Your task to perform on an android device: open chrome and create a bookmark for the current page Image 0: 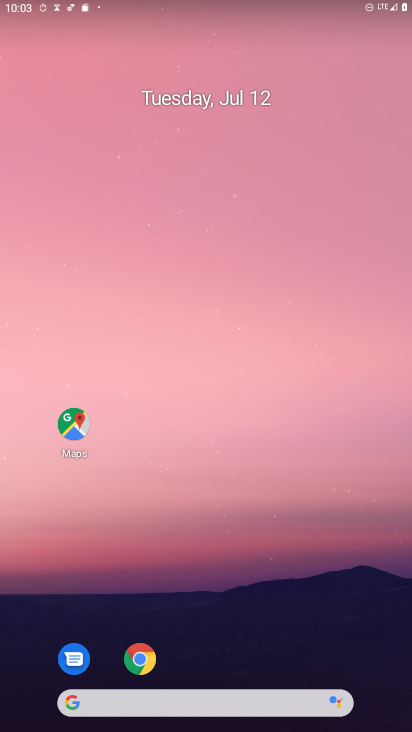
Step 0: click (143, 656)
Your task to perform on an android device: open chrome and create a bookmark for the current page Image 1: 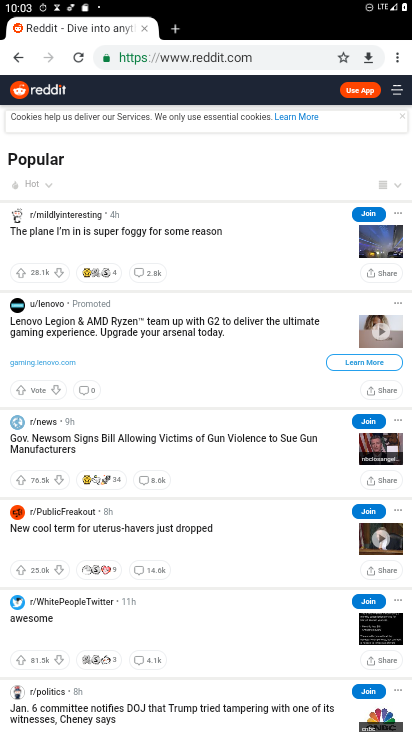
Step 1: click (342, 57)
Your task to perform on an android device: open chrome and create a bookmark for the current page Image 2: 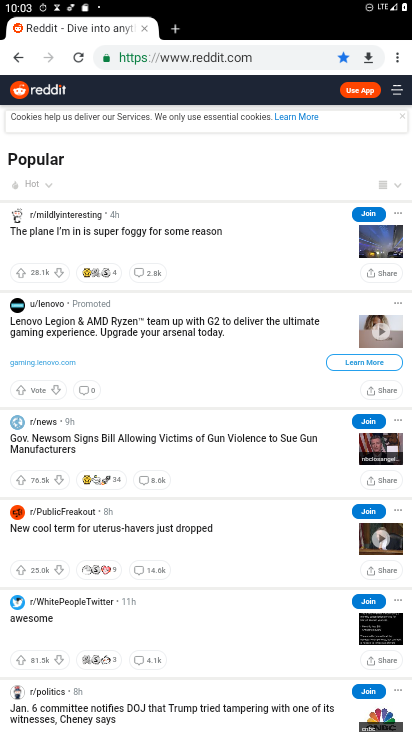
Step 2: task complete